Your task to perform on an android device: check storage Image 0: 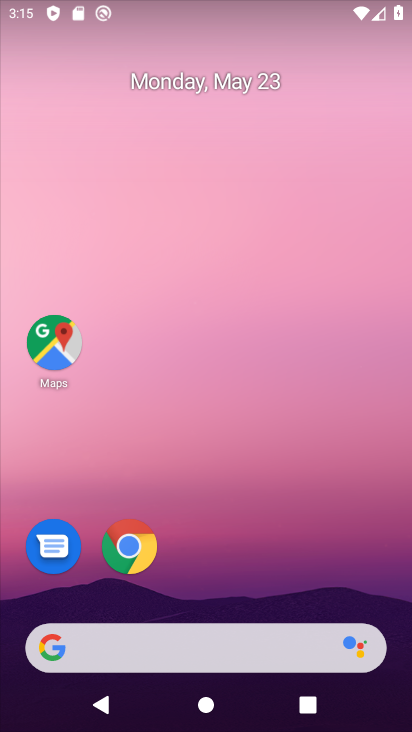
Step 0: drag from (262, 552) to (397, 323)
Your task to perform on an android device: check storage Image 1: 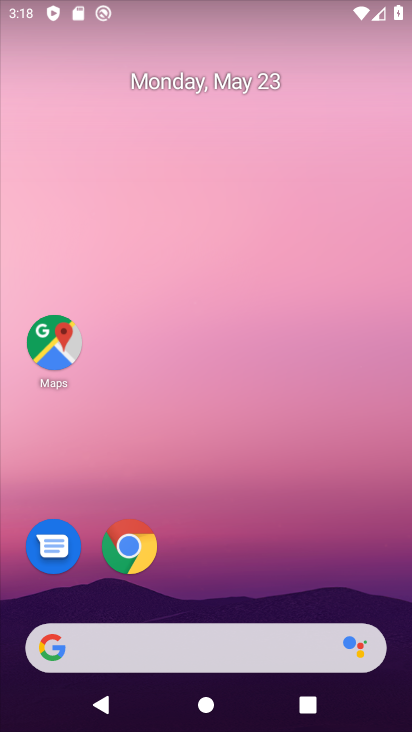
Step 1: drag from (191, 415) to (209, 299)
Your task to perform on an android device: check storage Image 2: 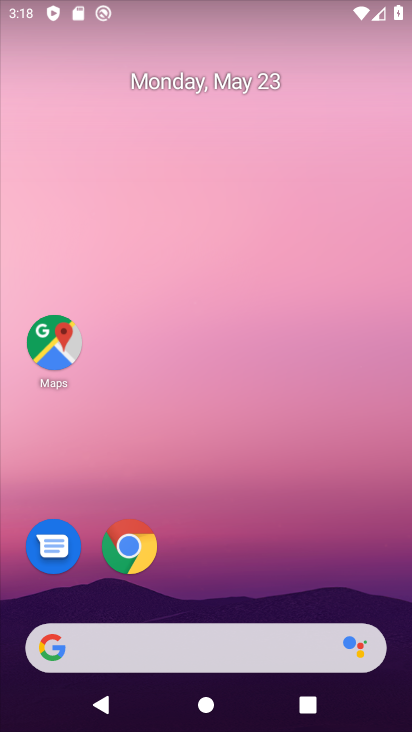
Step 2: drag from (254, 297) to (363, 0)
Your task to perform on an android device: check storage Image 3: 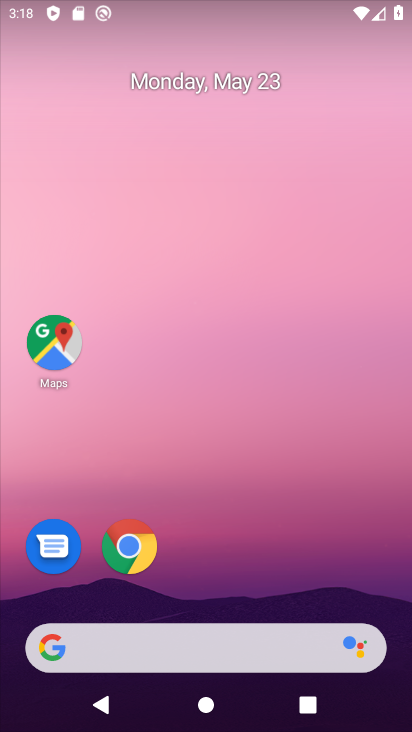
Step 3: drag from (306, 578) to (372, 74)
Your task to perform on an android device: check storage Image 4: 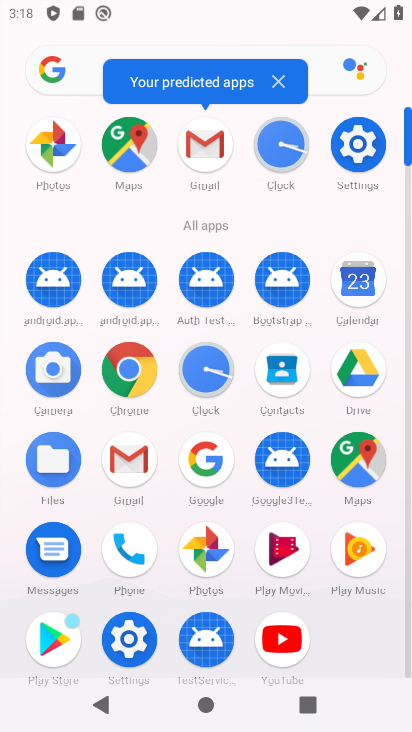
Step 4: click (129, 629)
Your task to perform on an android device: check storage Image 5: 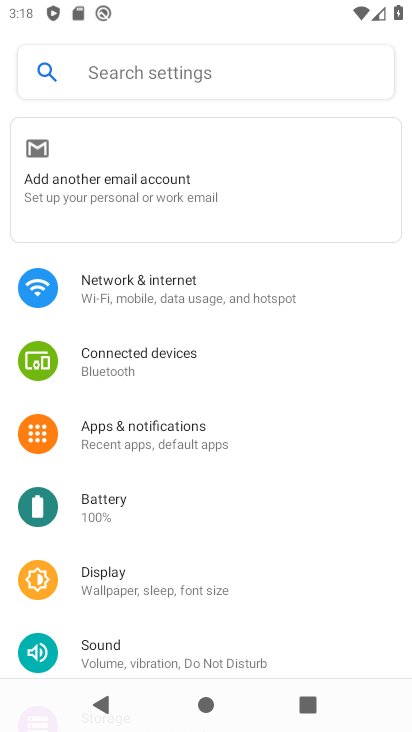
Step 5: drag from (185, 517) to (241, 381)
Your task to perform on an android device: check storage Image 6: 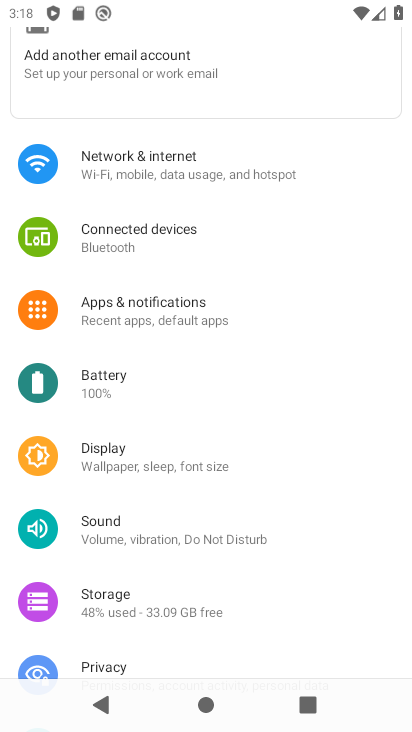
Step 6: click (129, 607)
Your task to perform on an android device: check storage Image 7: 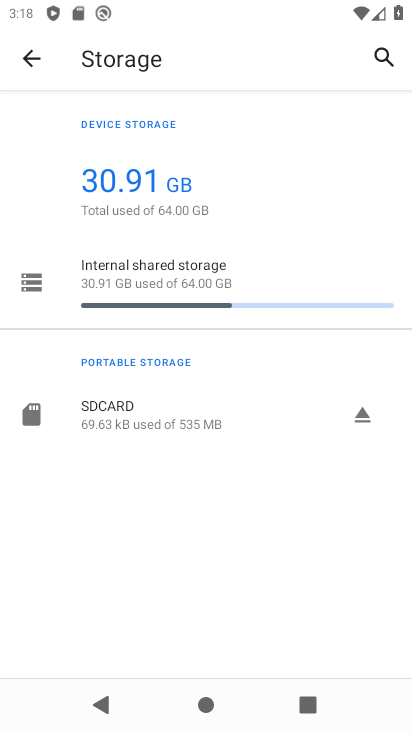
Step 7: task complete